Your task to perform on an android device: Open the phone app and click the voicemail tab. Image 0: 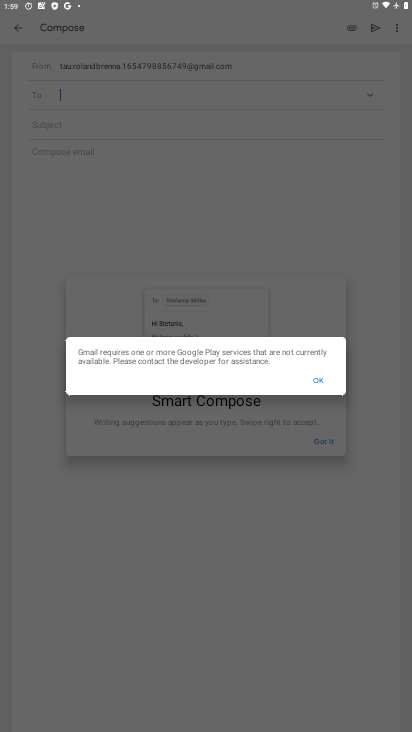
Step 0: press home button
Your task to perform on an android device: Open the phone app and click the voicemail tab. Image 1: 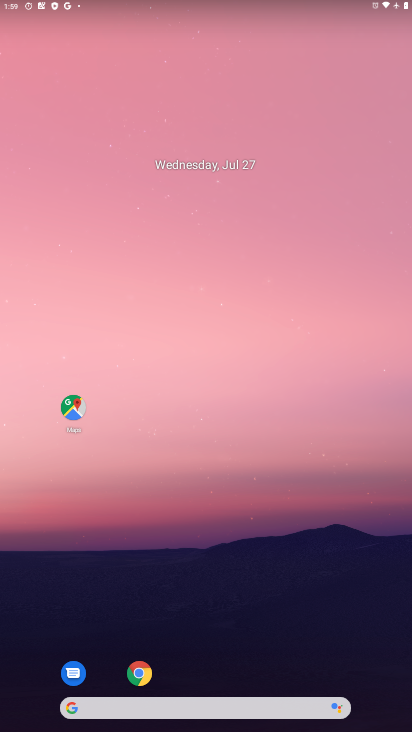
Step 1: drag from (229, 659) to (259, 3)
Your task to perform on an android device: Open the phone app and click the voicemail tab. Image 2: 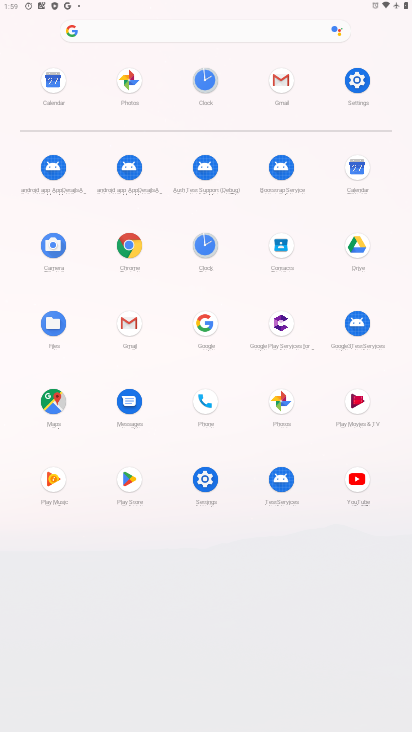
Step 2: click (202, 405)
Your task to perform on an android device: Open the phone app and click the voicemail tab. Image 3: 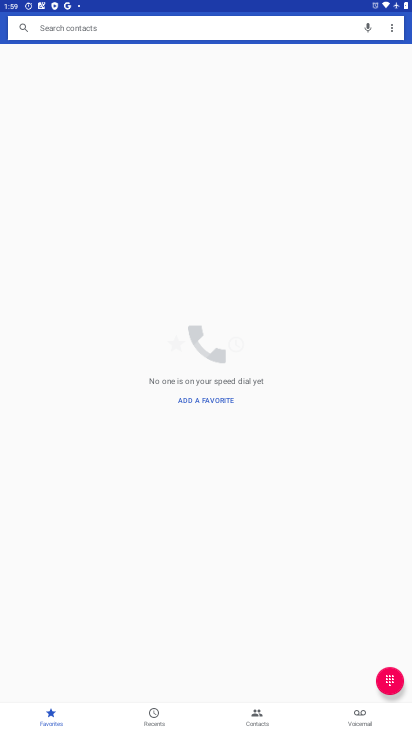
Step 3: click (361, 724)
Your task to perform on an android device: Open the phone app and click the voicemail tab. Image 4: 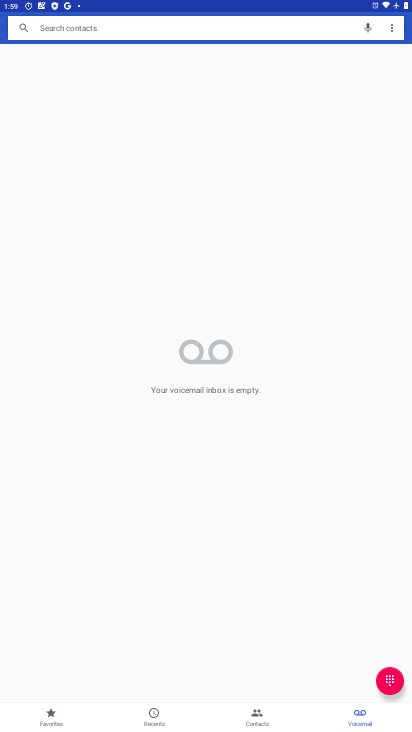
Step 4: task complete